Your task to perform on an android device: Go to Android settings Image 0: 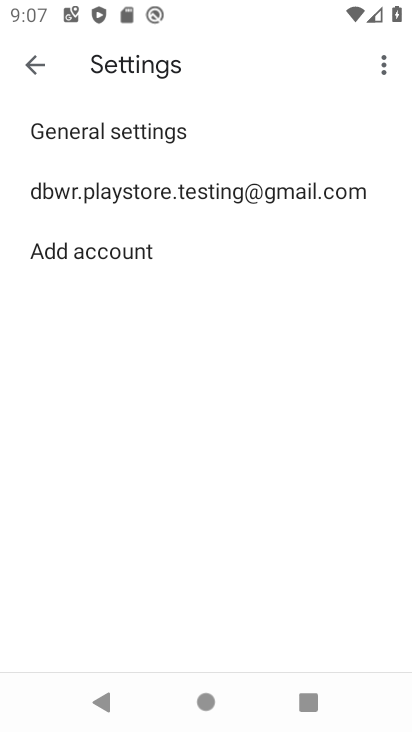
Step 0: press home button
Your task to perform on an android device: Go to Android settings Image 1: 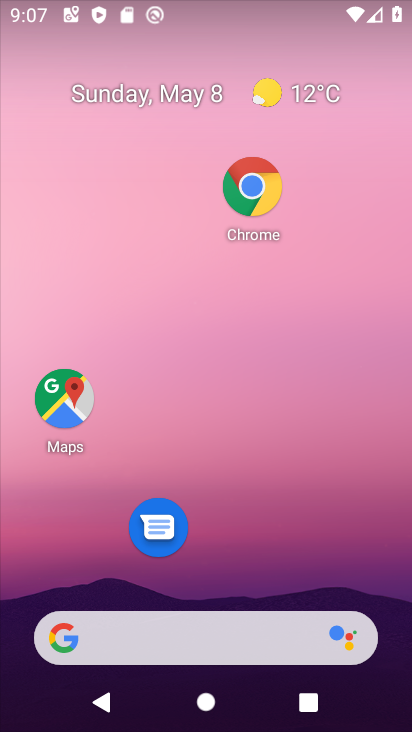
Step 1: drag from (330, 574) to (330, 292)
Your task to perform on an android device: Go to Android settings Image 2: 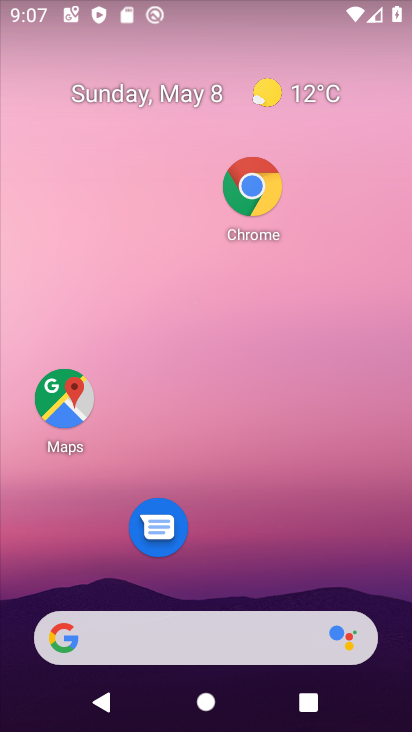
Step 2: drag from (255, 567) to (304, 248)
Your task to perform on an android device: Go to Android settings Image 3: 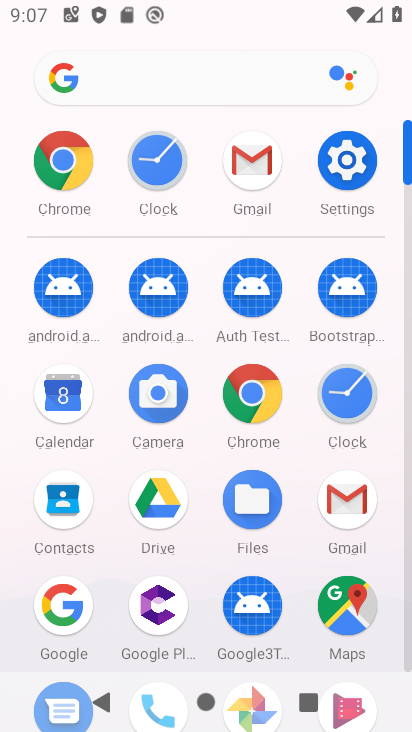
Step 3: drag from (203, 611) to (216, 219)
Your task to perform on an android device: Go to Android settings Image 4: 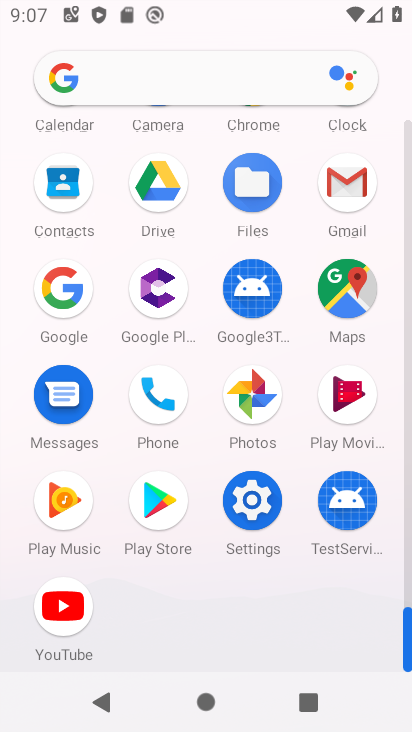
Step 4: click (256, 496)
Your task to perform on an android device: Go to Android settings Image 5: 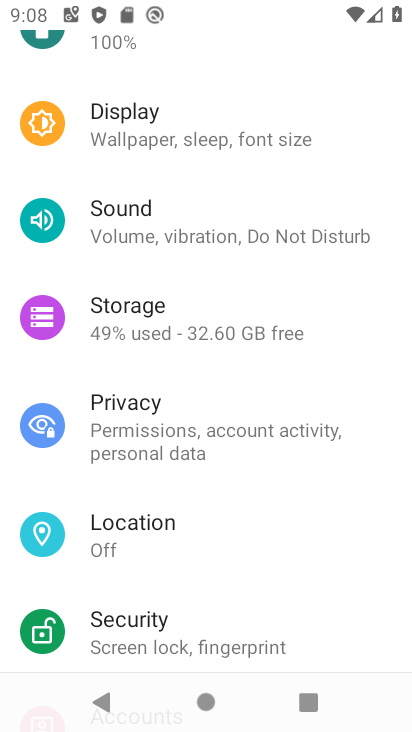
Step 5: task complete